Your task to perform on an android device: Open Yahoo.com Image 0: 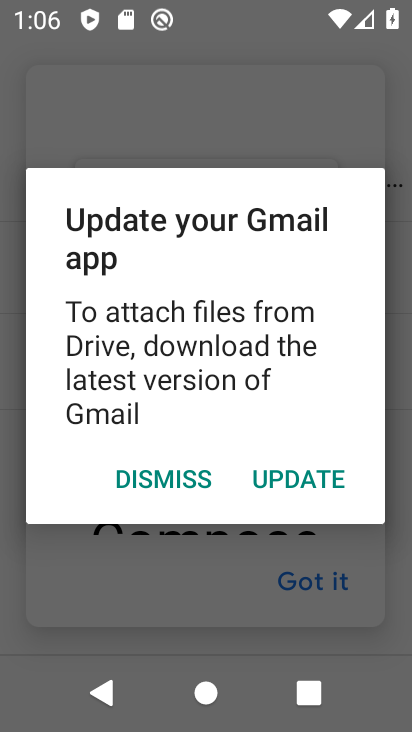
Step 0: press home button
Your task to perform on an android device: Open Yahoo.com Image 1: 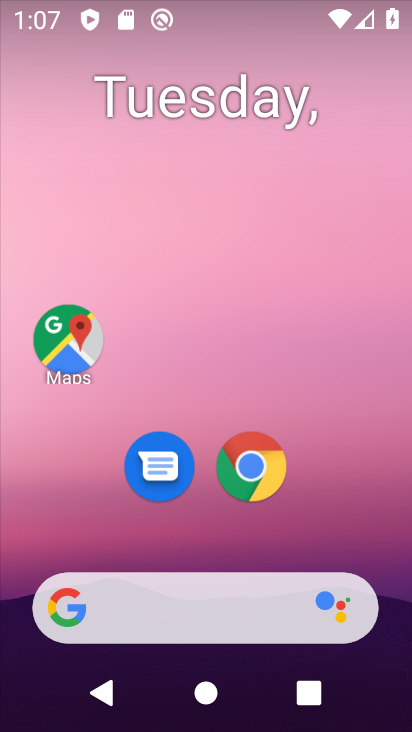
Step 1: click (258, 465)
Your task to perform on an android device: Open Yahoo.com Image 2: 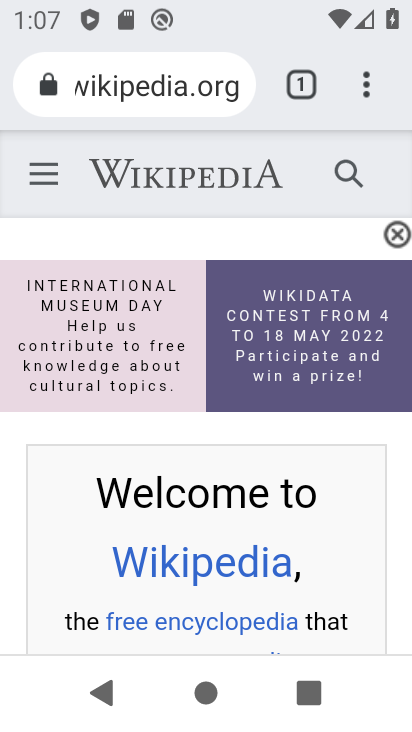
Step 2: click (131, 93)
Your task to perform on an android device: Open Yahoo.com Image 3: 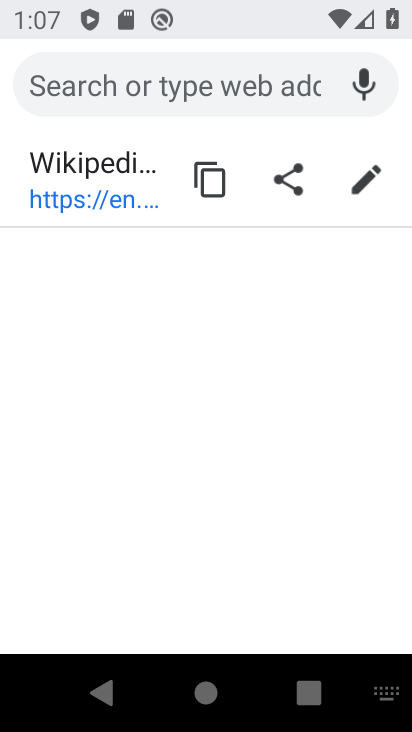
Step 3: type "yahoo.com"
Your task to perform on an android device: Open Yahoo.com Image 4: 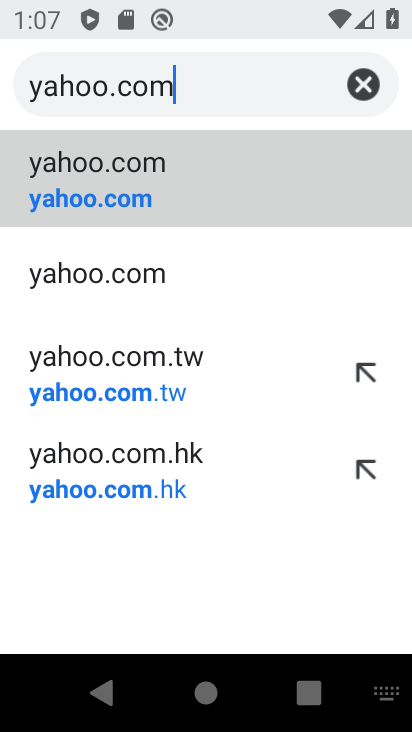
Step 4: click (136, 152)
Your task to perform on an android device: Open Yahoo.com Image 5: 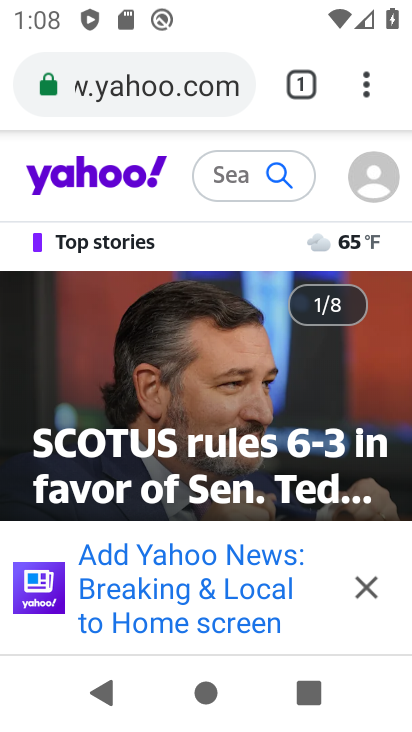
Step 5: task complete